Your task to perform on an android device: Go to eBay Image 0: 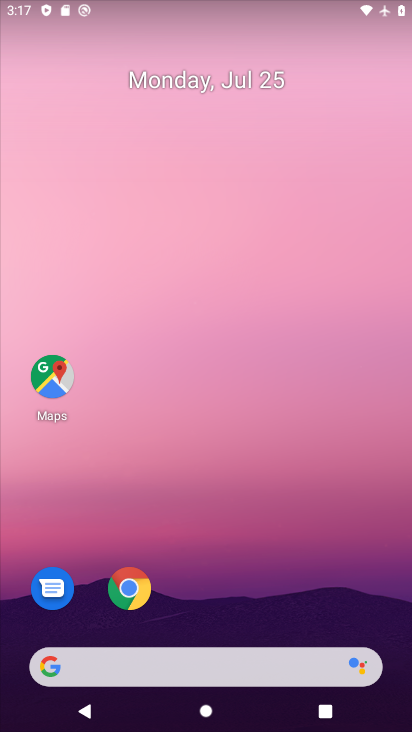
Step 0: drag from (231, 721) to (229, 161)
Your task to perform on an android device: Go to eBay Image 1: 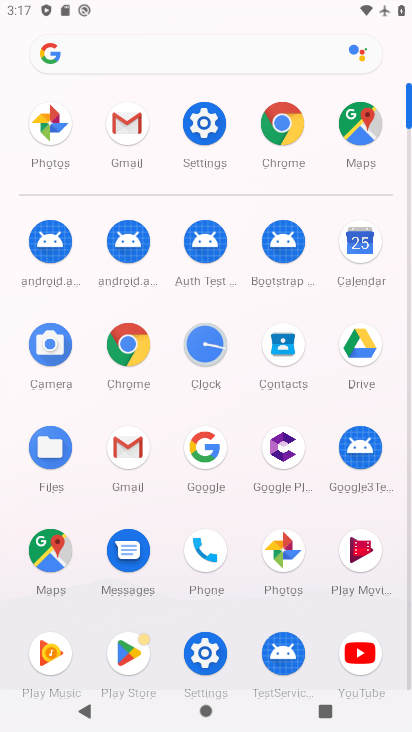
Step 1: click (284, 123)
Your task to perform on an android device: Go to eBay Image 2: 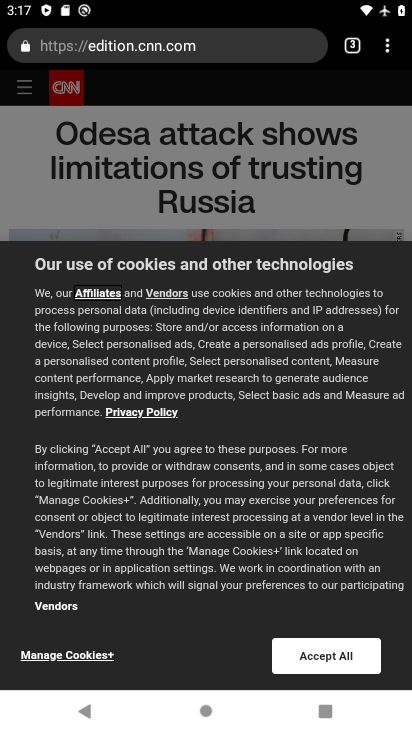
Step 2: click (389, 50)
Your task to perform on an android device: Go to eBay Image 3: 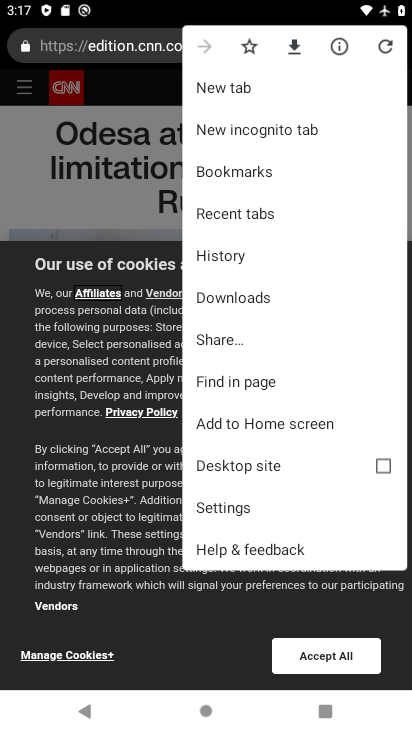
Step 3: click (233, 87)
Your task to perform on an android device: Go to eBay Image 4: 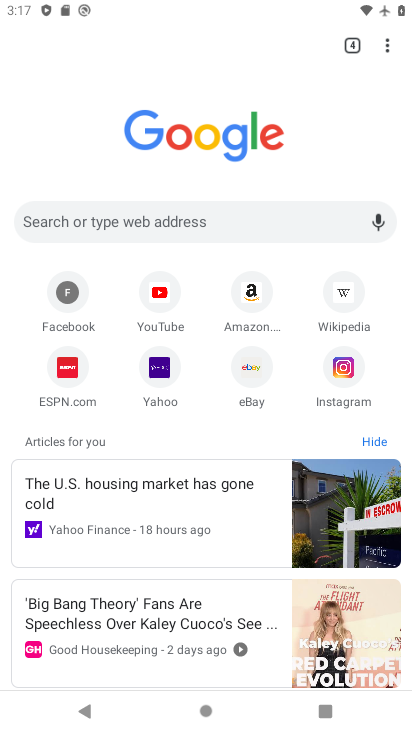
Step 4: click (254, 362)
Your task to perform on an android device: Go to eBay Image 5: 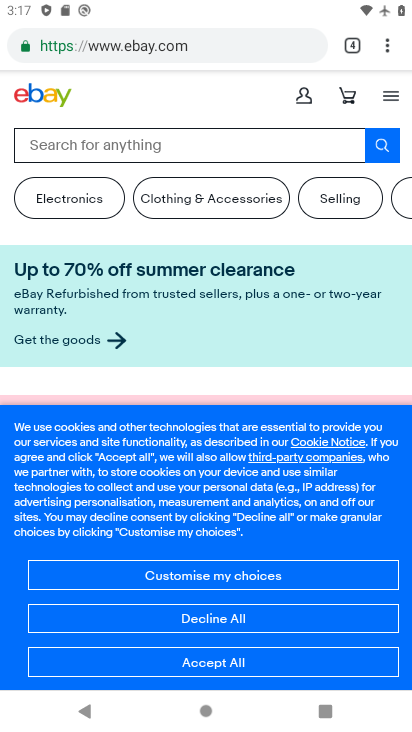
Step 5: task complete